Your task to perform on an android device: Open privacy settings Image 0: 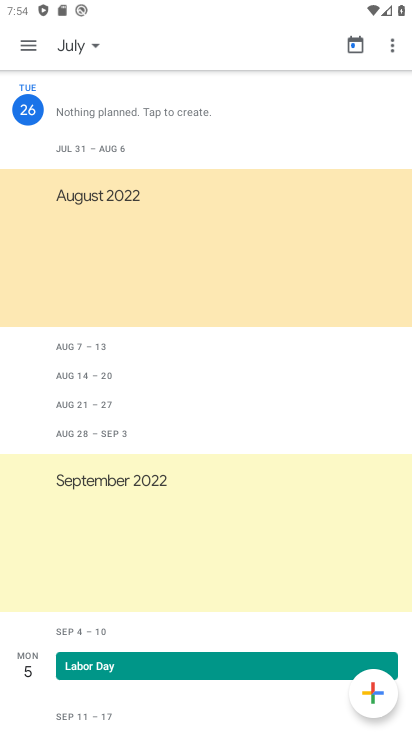
Step 0: press home button
Your task to perform on an android device: Open privacy settings Image 1: 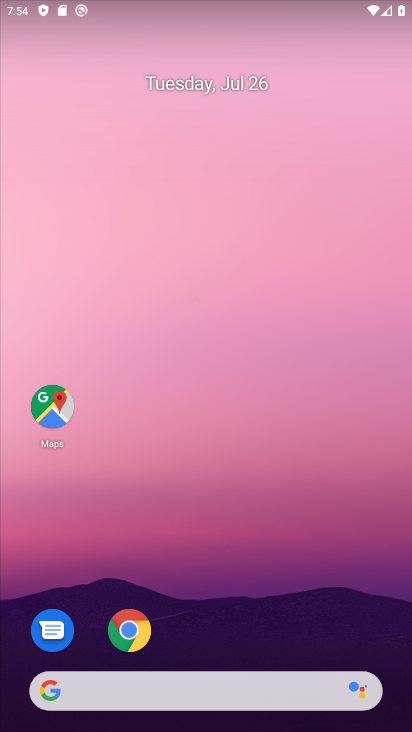
Step 1: drag from (151, 693) to (267, 44)
Your task to perform on an android device: Open privacy settings Image 2: 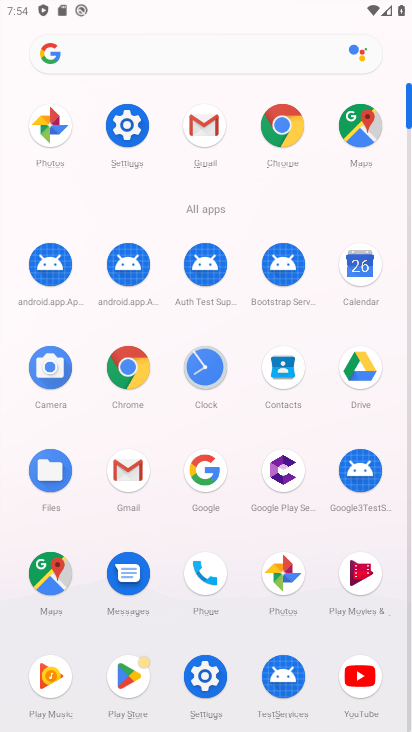
Step 2: click (126, 123)
Your task to perform on an android device: Open privacy settings Image 3: 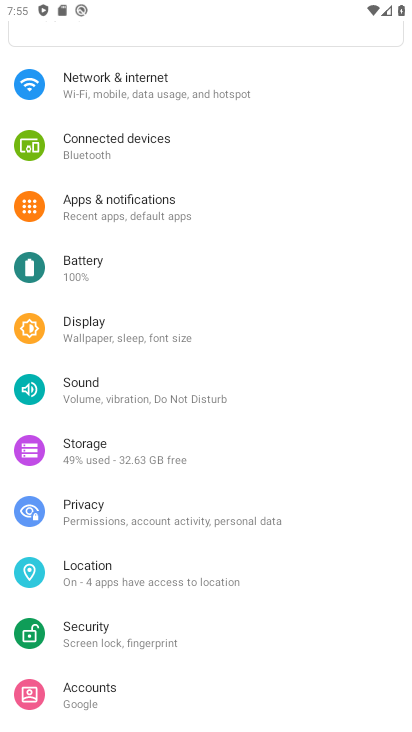
Step 3: click (85, 514)
Your task to perform on an android device: Open privacy settings Image 4: 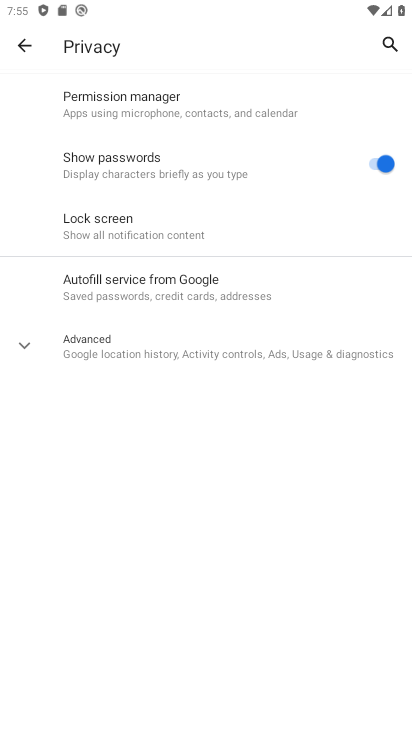
Step 4: task complete